Your task to perform on an android device: choose inbox layout in the gmail app Image 0: 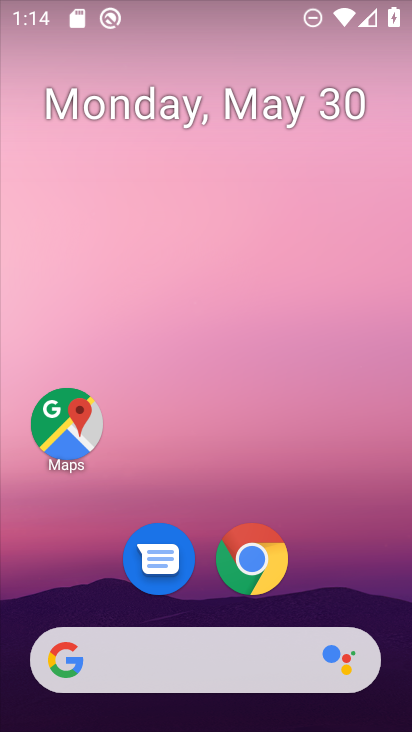
Step 0: drag from (303, 504) to (315, 21)
Your task to perform on an android device: choose inbox layout in the gmail app Image 1: 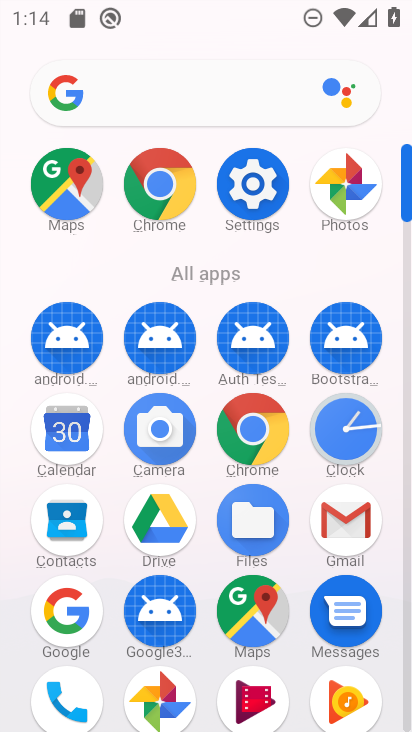
Step 1: click (340, 528)
Your task to perform on an android device: choose inbox layout in the gmail app Image 2: 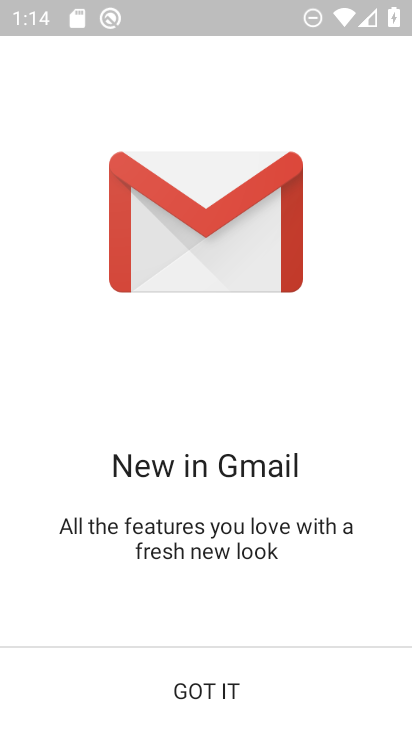
Step 2: click (186, 674)
Your task to perform on an android device: choose inbox layout in the gmail app Image 3: 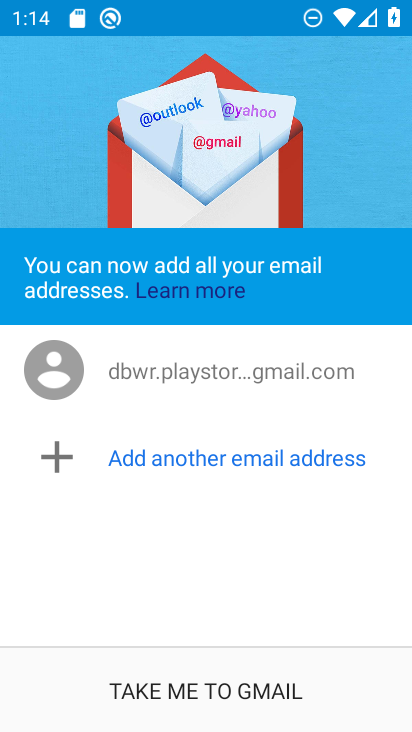
Step 3: click (190, 681)
Your task to perform on an android device: choose inbox layout in the gmail app Image 4: 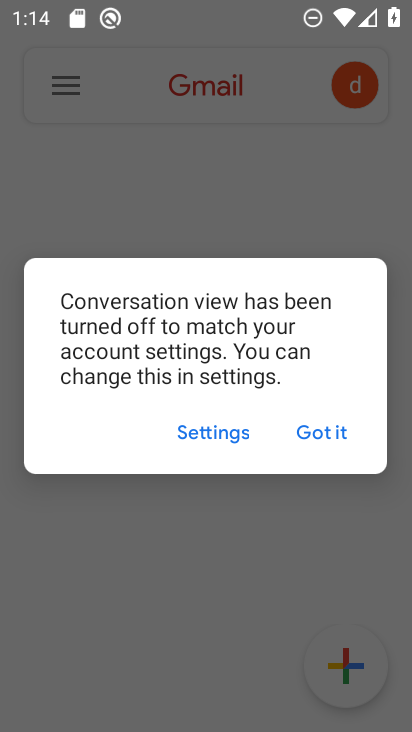
Step 4: click (321, 426)
Your task to perform on an android device: choose inbox layout in the gmail app Image 5: 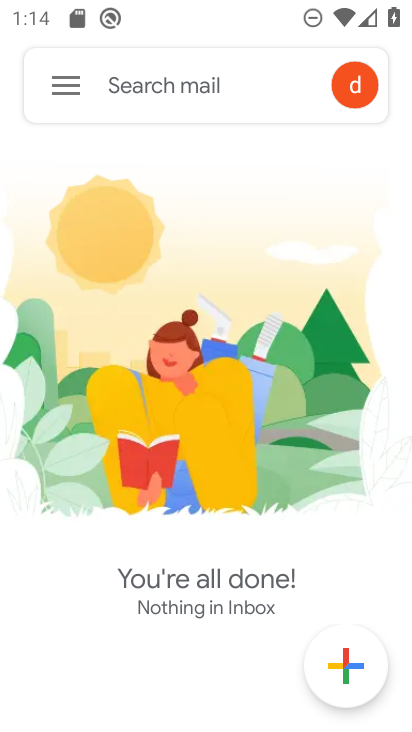
Step 5: click (61, 89)
Your task to perform on an android device: choose inbox layout in the gmail app Image 6: 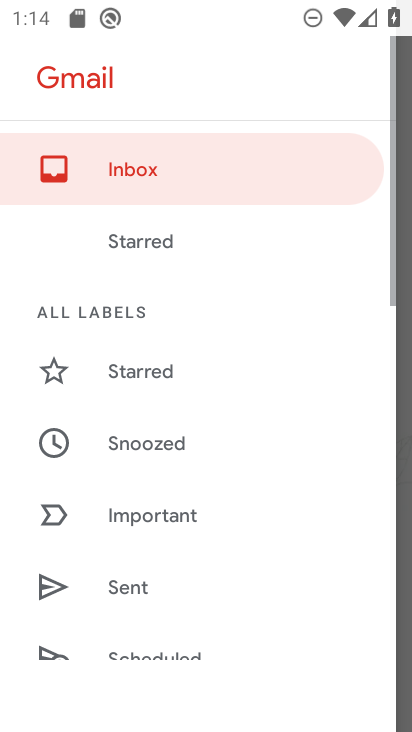
Step 6: drag from (189, 600) to (273, 130)
Your task to perform on an android device: choose inbox layout in the gmail app Image 7: 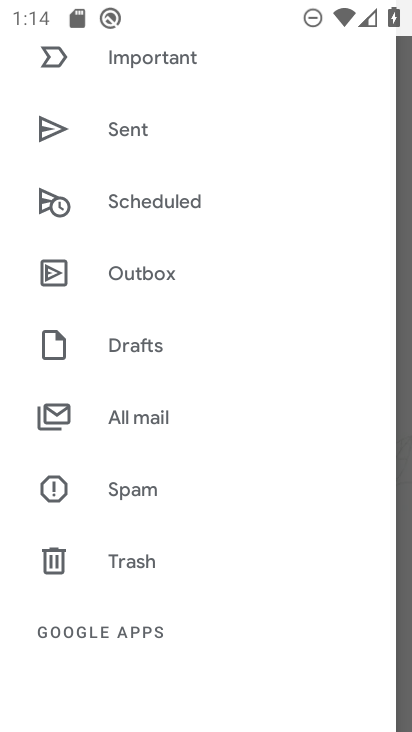
Step 7: drag from (213, 590) to (249, 93)
Your task to perform on an android device: choose inbox layout in the gmail app Image 8: 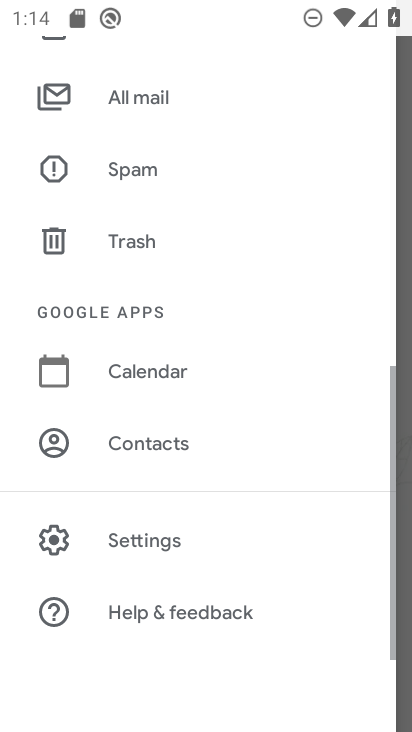
Step 8: click (184, 549)
Your task to perform on an android device: choose inbox layout in the gmail app Image 9: 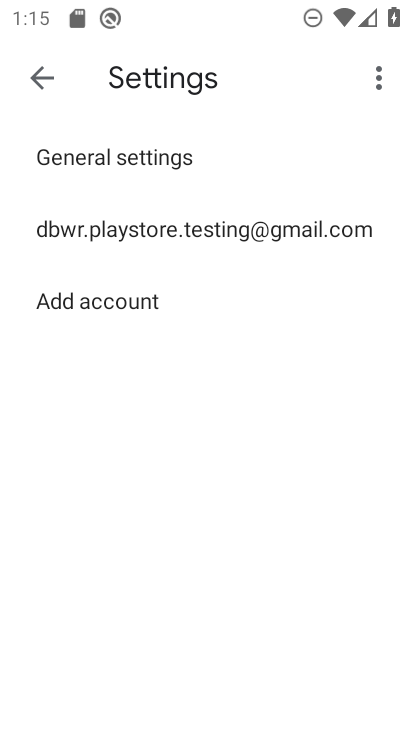
Step 9: click (287, 228)
Your task to perform on an android device: choose inbox layout in the gmail app Image 10: 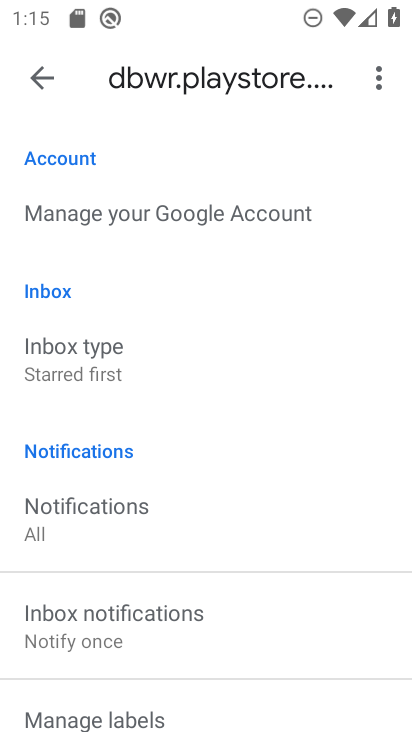
Step 10: click (88, 374)
Your task to perform on an android device: choose inbox layout in the gmail app Image 11: 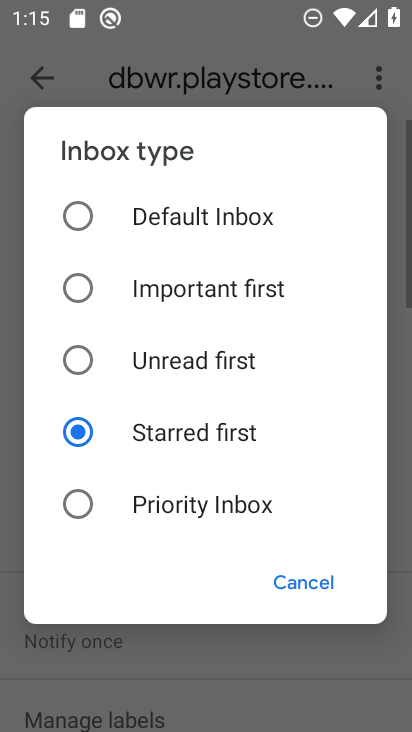
Step 11: click (194, 225)
Your task to perform on an android device: choose inbox layout in the gmail app Image 12: 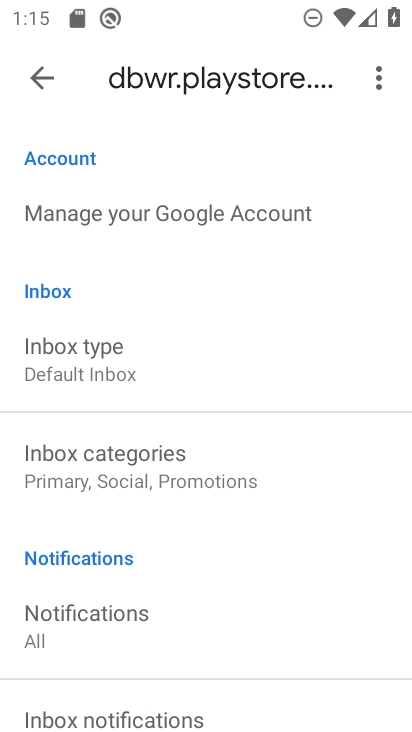
Step 12: task complete